Your task to perform on an android device: Where can I buy a nice beach towel? Image 0: 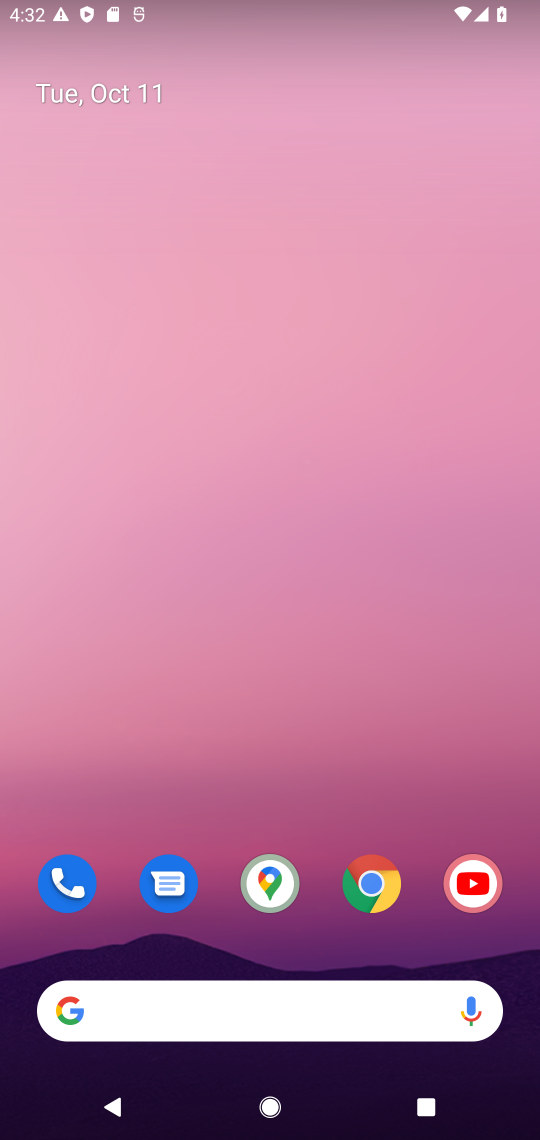
Step 0: drag from (330, 948) to (291, 36)
Your task to perform on an android device: Where can I buy a nice beach towel? Image 1: 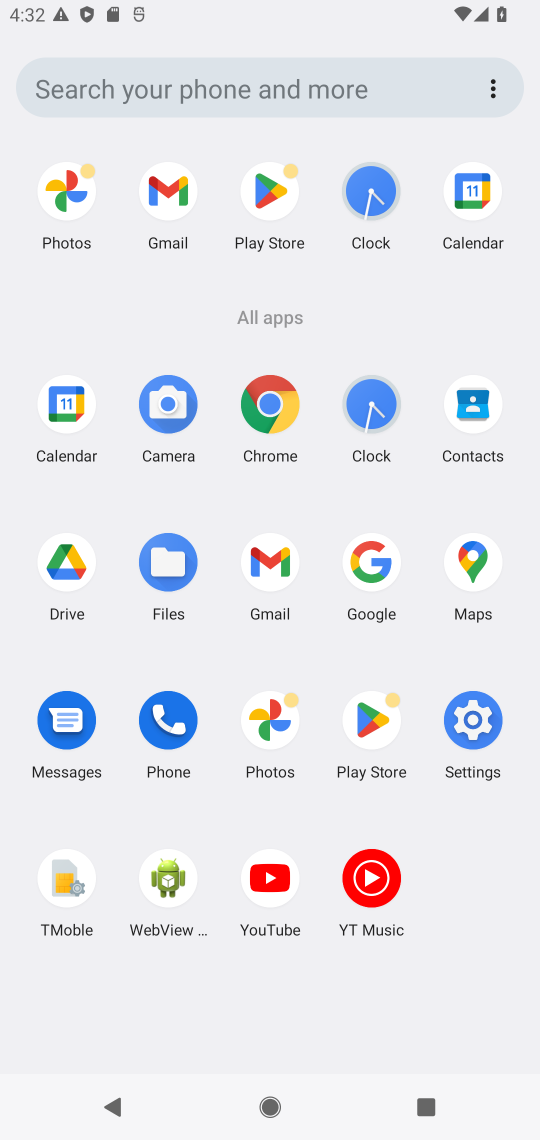
Step 1: click (269, 397)
Your task to perform on an android device: Where can I buy a nice beach towel? Image 2: 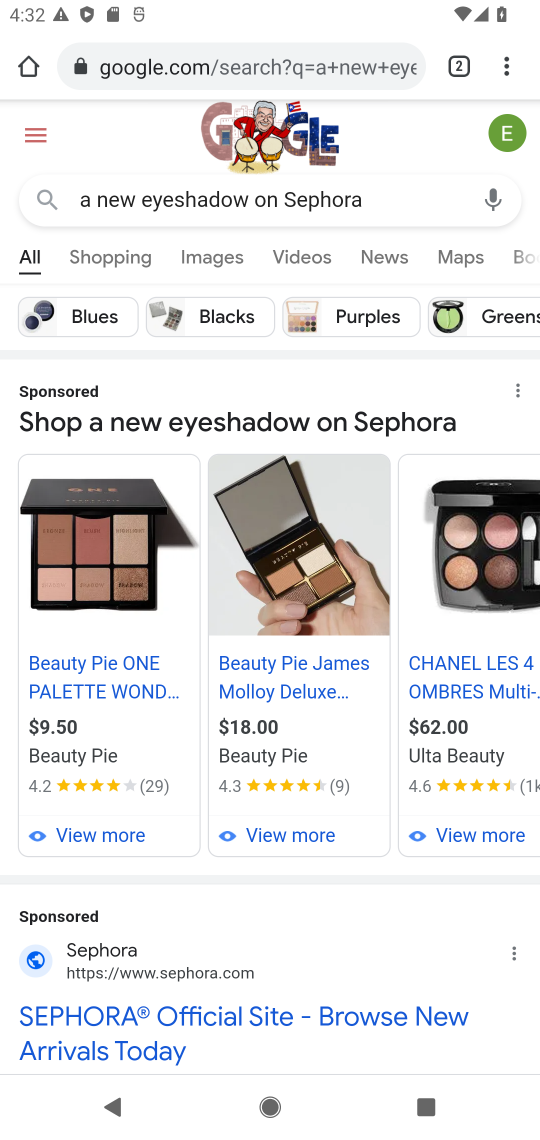
Step 2: click (226, 61)
Your task to perform on an android device: Where can I buy a nice beach towel? Image 3: 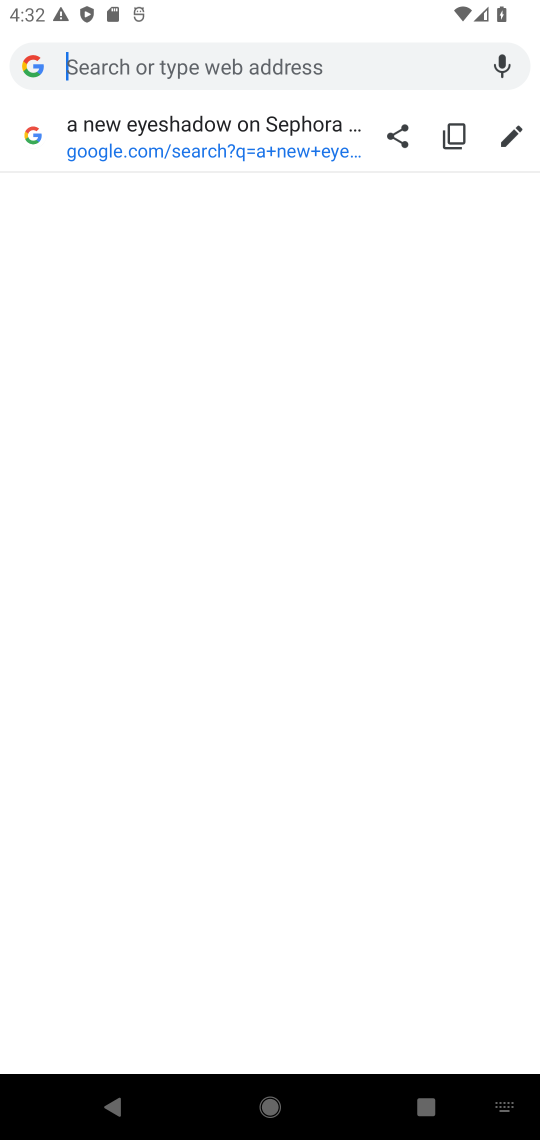
Step 3: type "Where can I buy a nice  beach towel?"
Your task to perform on an android device: Where can I buy a nice beach towel? Image 4: 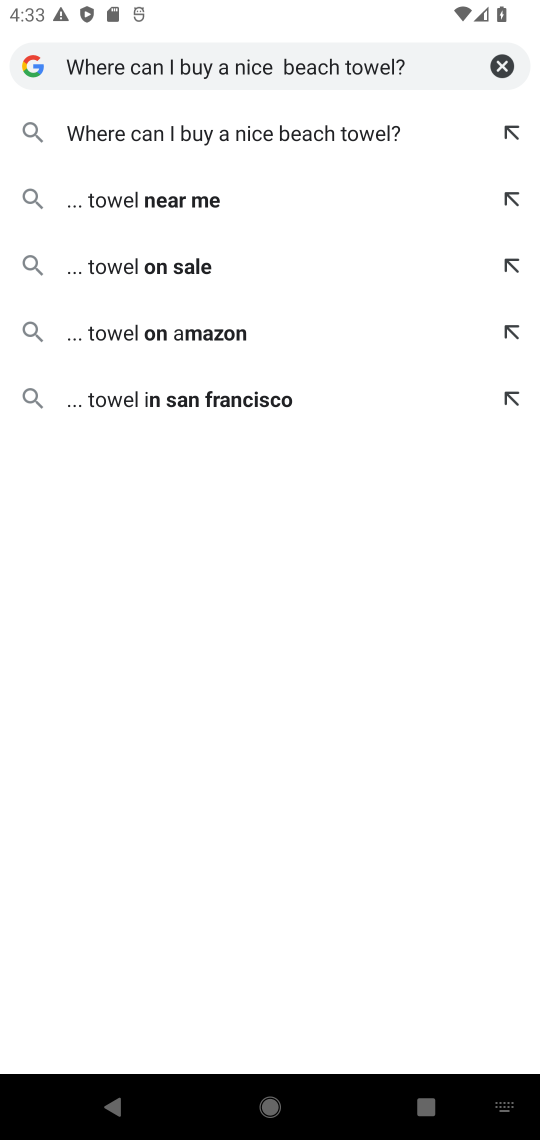
Step 4: press enter
Your task to perform on an android device: Where can I buy a nice beach towel? Image 5: 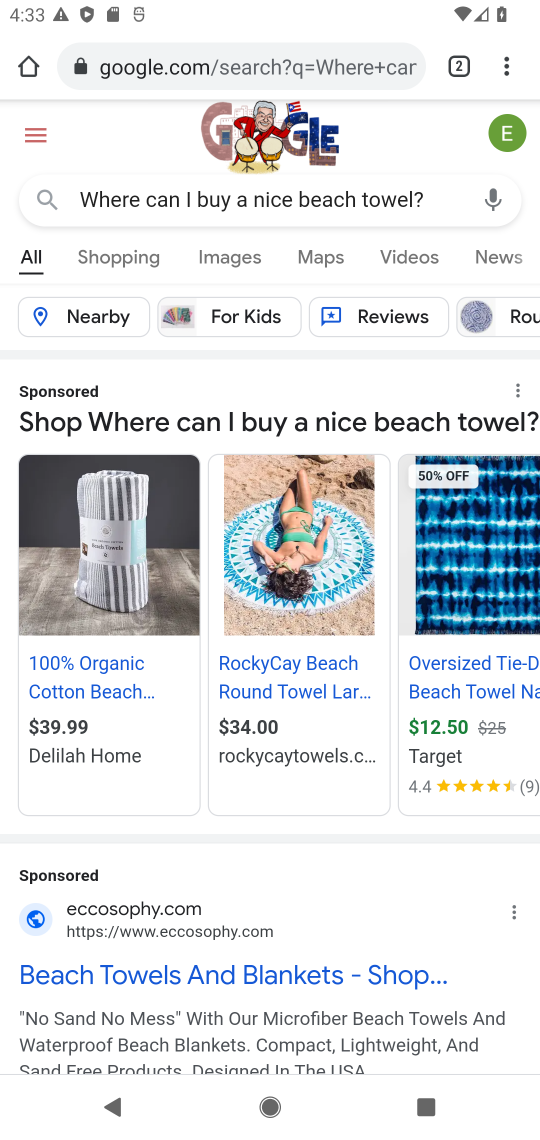
Step 5: task complete